Your task to perform on an android device: Search for Italian restaurants on Maps Image 0: 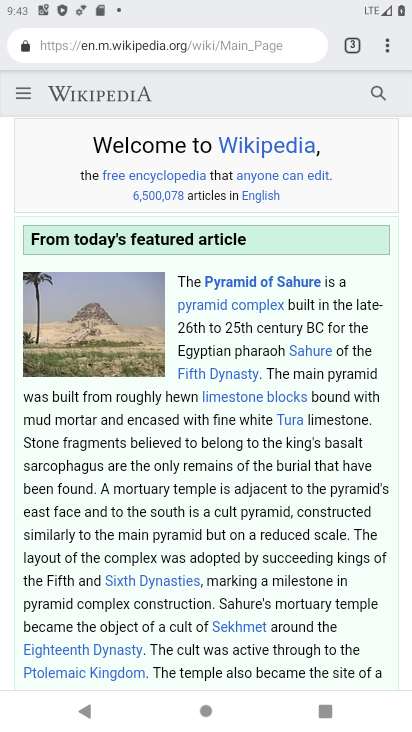
Step 0: press home button
Your task to perform on an android device: Search for Italian restaurants on Maps Image 1: 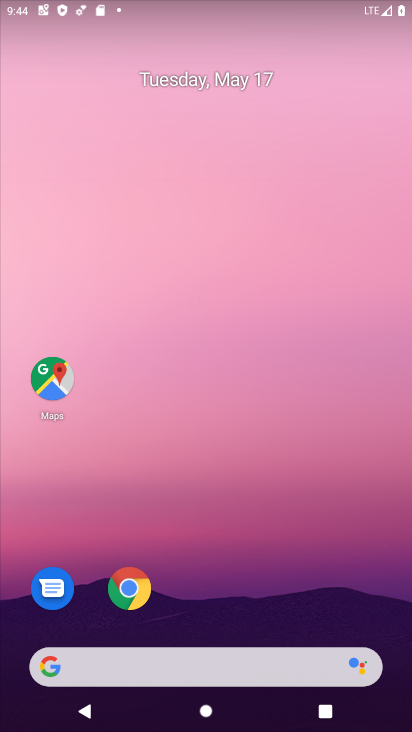
Step 1: drag from (214, 616) to (199, 51)
Your task to perform on an android device: Search for Italian restaurants on Maps Image 2: 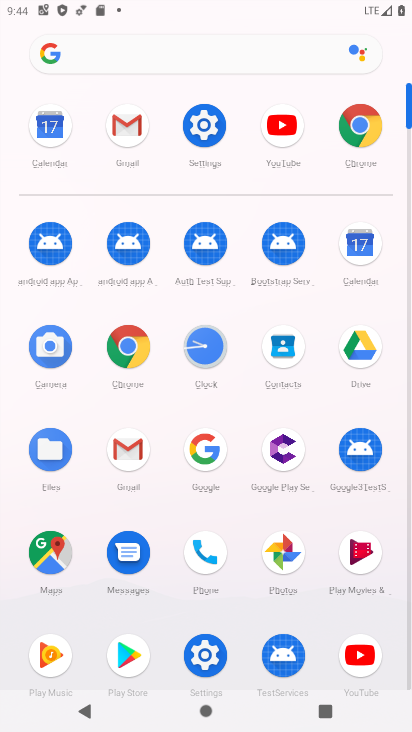
Step 2: click (58, 569)
Your task to perform on an android device: Search for Italian restaurants on Maps Image 3: 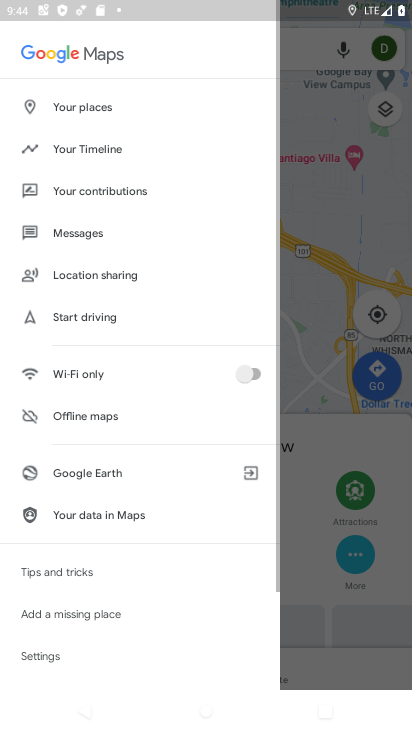
Step 3: click (316, 107)
Your task to perform on an android device: Search for Italian restaurants on Maps Image 4: 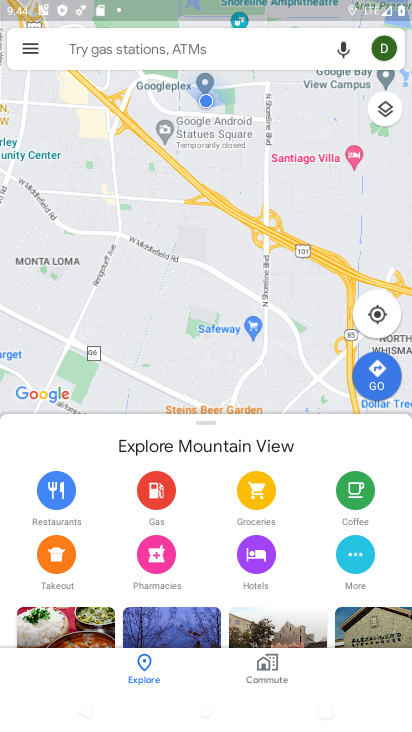
Step 4: click (254, 57)
Your task to perform on an android device: Search for Italian restaurants on Maps Image 5: 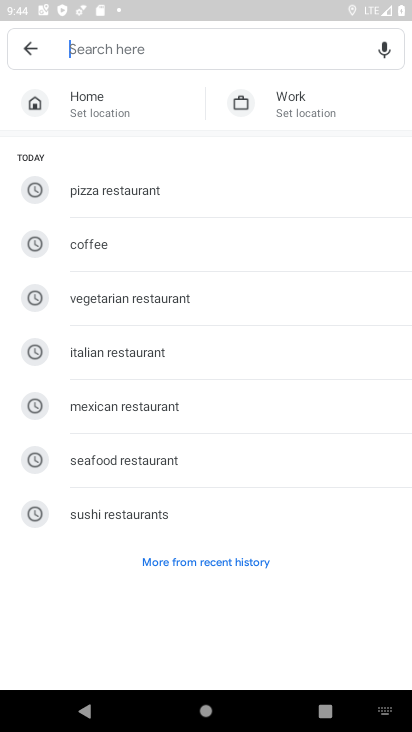
Step 5: click (143, 349)
Your task to perform on an android device: Search for Italian restaurants on Maps Image 6: 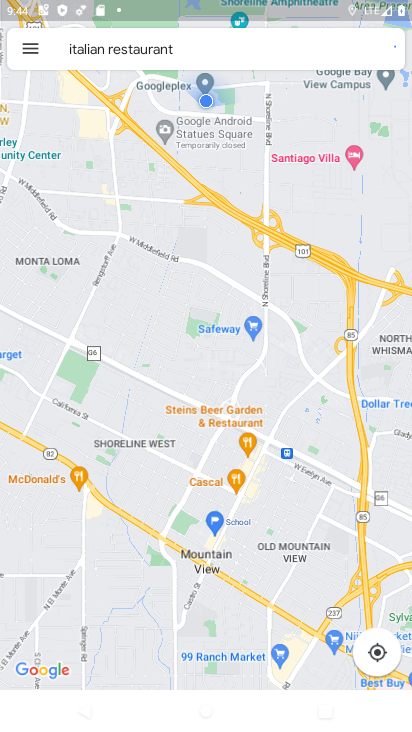
Step 6: task complete